Your task to perform on an android device: toggle data saver in the chrome app Image 0: 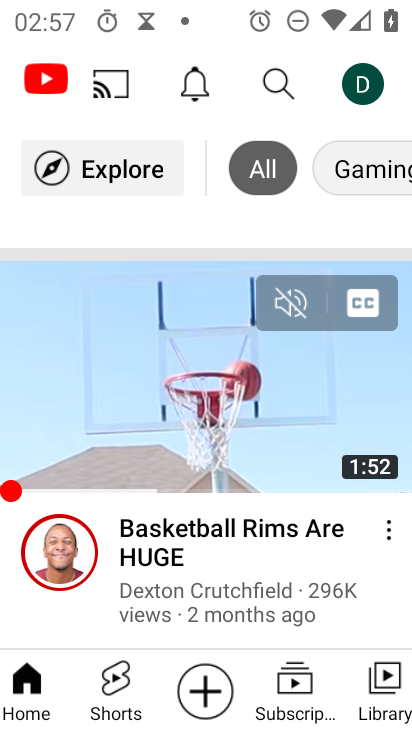
Step 0: press home button
Your task to perform on an android device: toggle data saver in the chrome app Image 1: 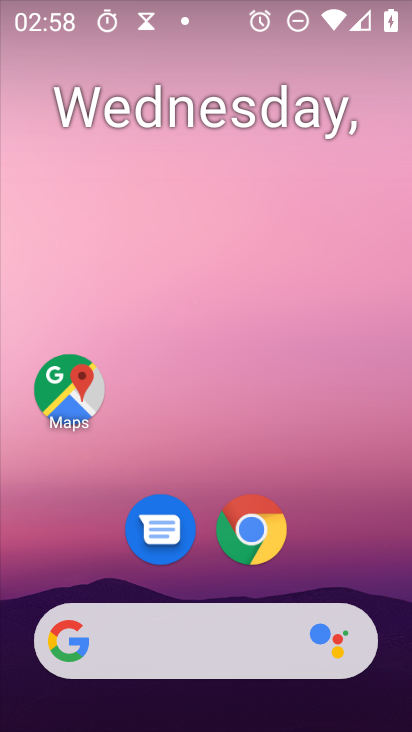
Step 1: click (298, 41)
Your task to perform on an android device: toggle data saver in the chrome app Image 2: 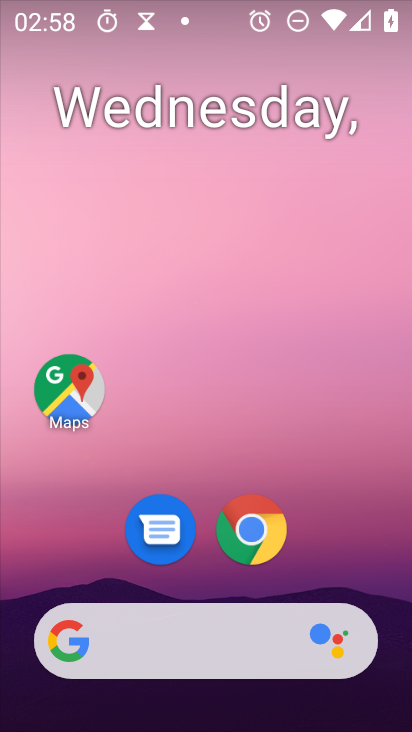
Step 2: drag from (324, 605) to (288, 38)
Your task to perform on an android device: toggle data saver in the chrome app Image 3: 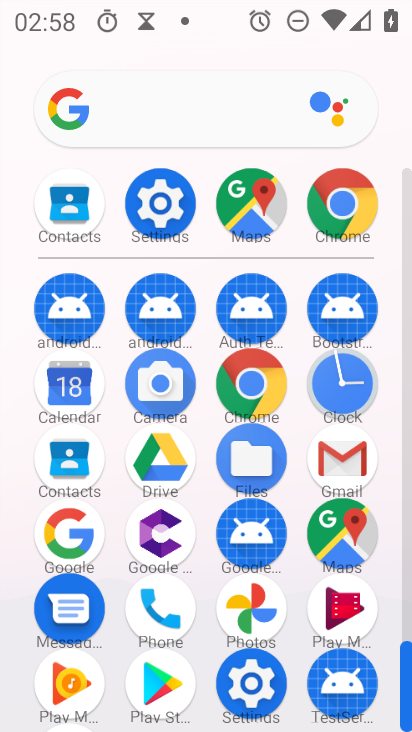
Step 3: click (250, 375)
Your task to perform on an android device: toggle data saver in the chrome app Image 4: 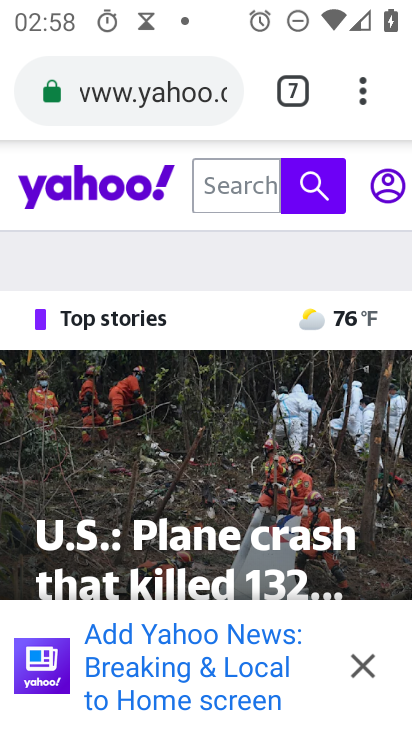
Step 4: click (356, 88)
Your task to perform on an android device: toggle data saver in the chrome app Image 5: 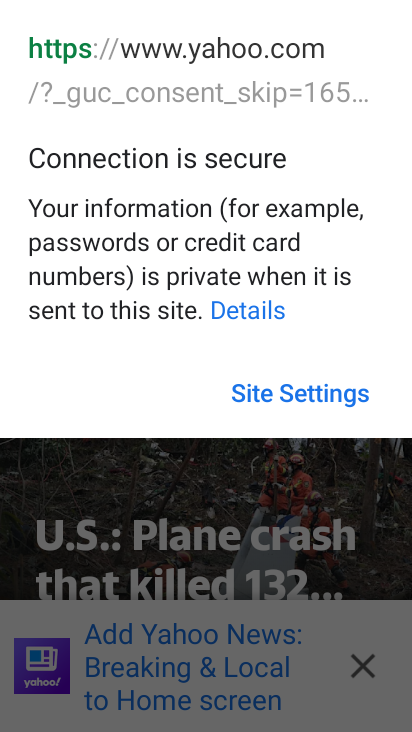
Step 5: click (307, 488)
Your task to perform on an android device: toggle data saver in the chrome app Image 6: 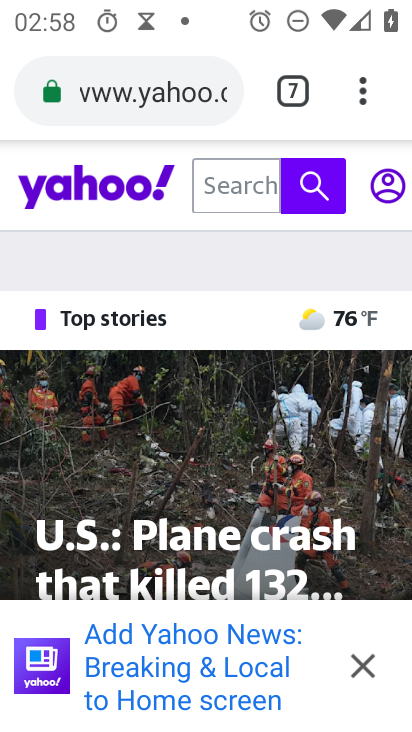
Step 6: click (359, 94)
Your task to perform on an android device: toggle data saver in the chrome app Image 7: 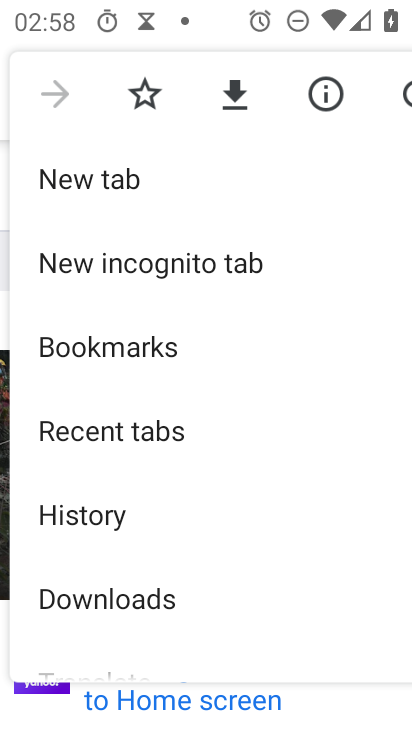
Step 7: drag from (254, 547) to (335, 0)
Your task to perform on an android device: toggle data saver in the chrome app Image 8: 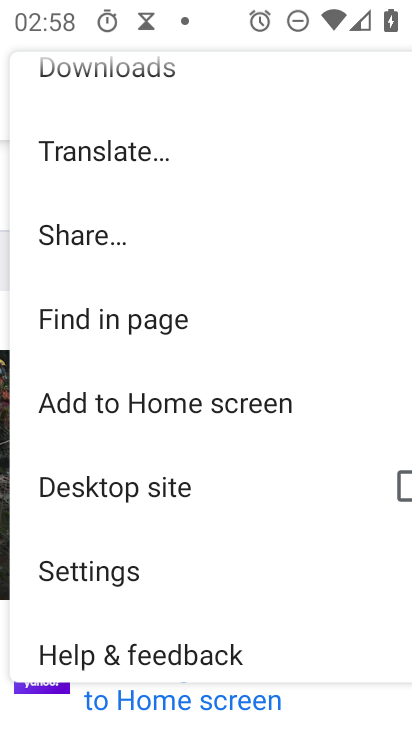
Step 8: click (168, 573)
Your task to perform on an android device: toggle data saver in the chrome app Image 9: 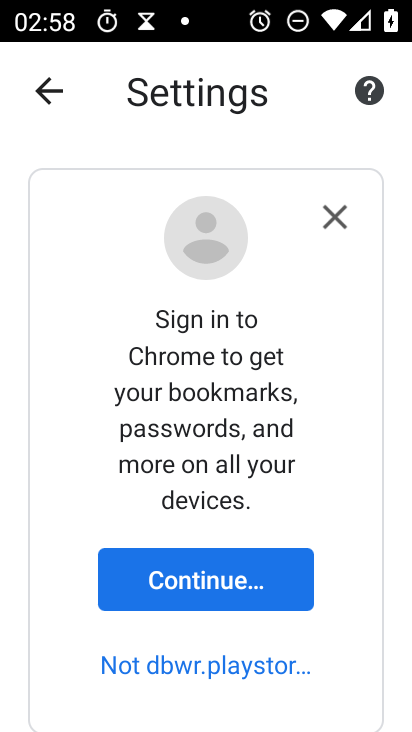
Step 9: drag from (276, 682) to (324, 117)
Your task to perform on an android device: toggle data saver in the chrome app Image 10: 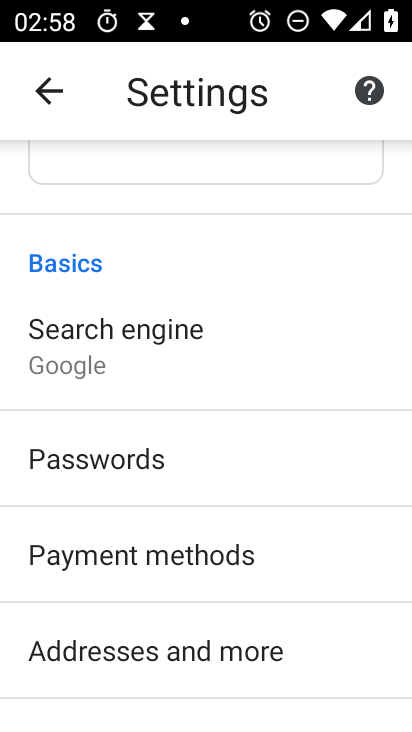
Step 10: drag from (231, 649) to (215, 185)
Your task to perform on an android device: toggle data saver in the chrome app Image 11: 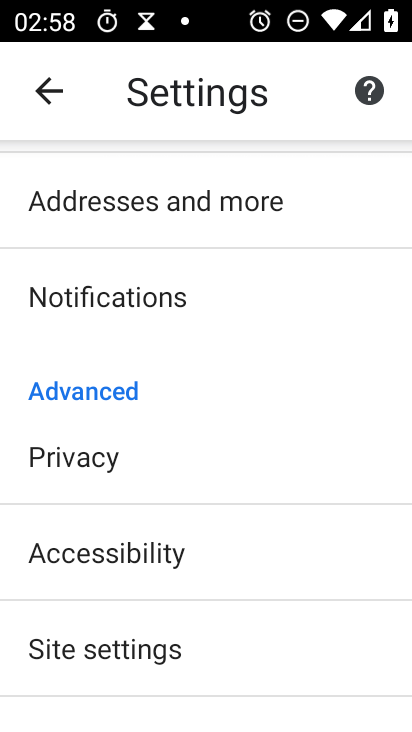
Step 11: drag from (150, 692) to (183, 309)
Your task to perform on an android device: toggle data saver in the chrome app Image 12: 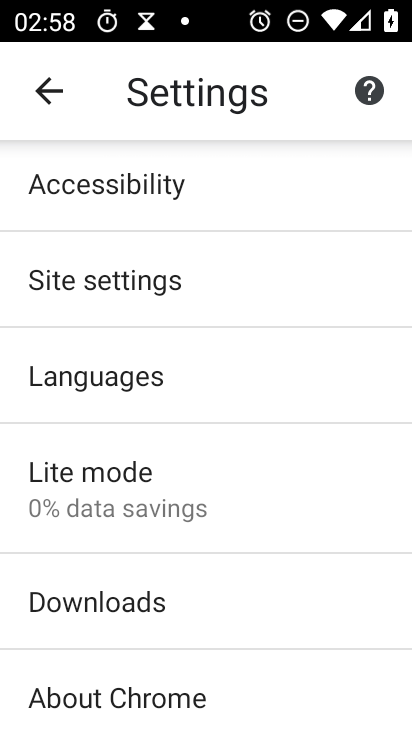
Step 12: click (201, 502)
Your task to perform on an android device: toggle data saver in the chrome app Image 13: 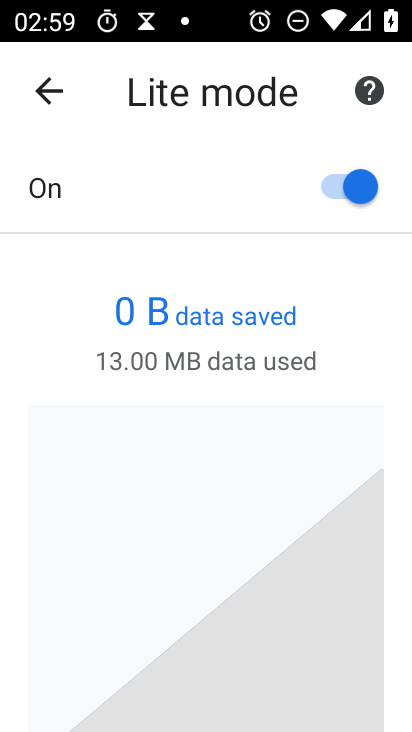
Step 13: task complete